Your task to perform on an android device: Open my contact list Image 0: 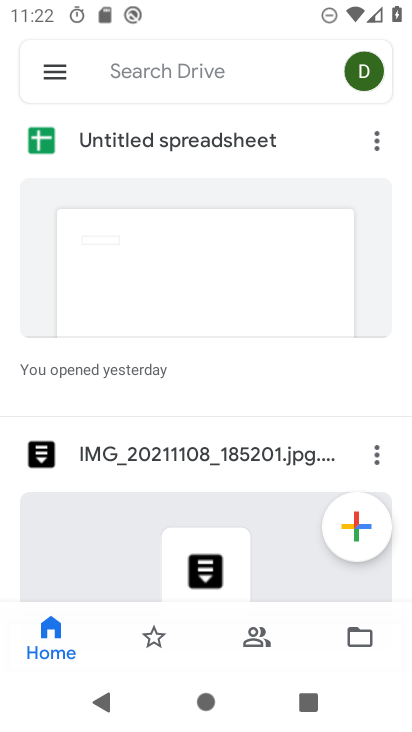
Step 0: press home button
Your task to perform on an android device: Open my contact list Image 1: 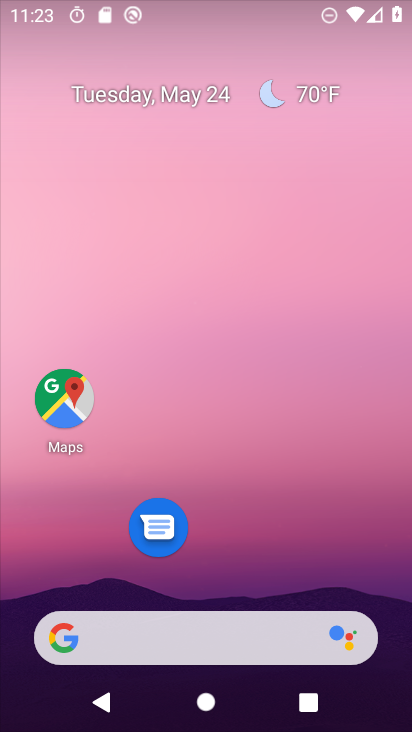
Step 1: drag from (294, 433) to (332, 50)
Your task to perform on an android device: Open my contact list Image 2: 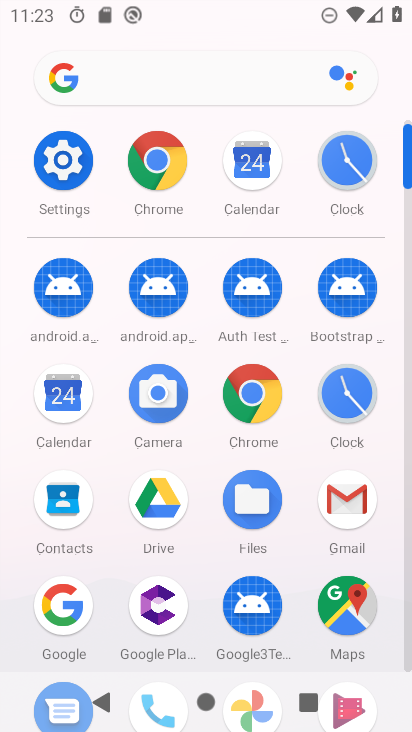
Step 2: click (77, 493)
Your task to perform on an android device: Open my contact list Image 3: 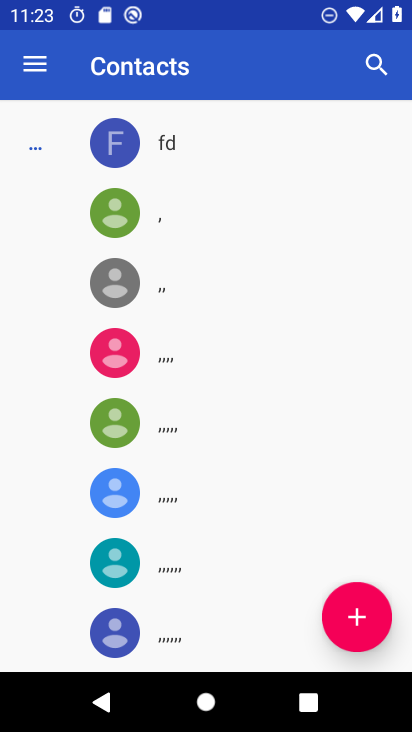
Step 3: task complete